Your task to perform on an android device: Show me popular games on the Play Store Image 0: 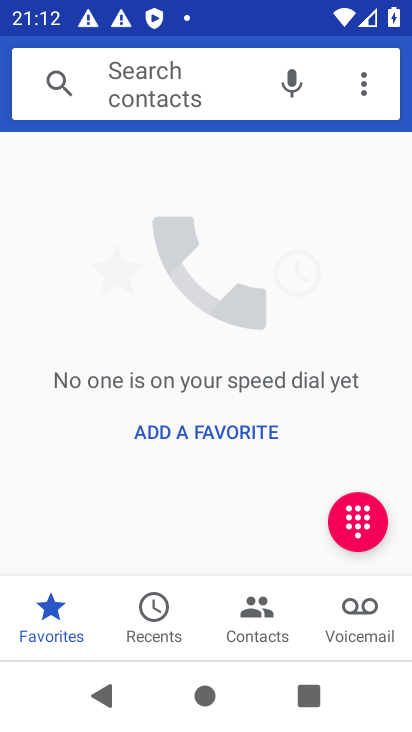
Step 0: press home button
Your task to perform on an android device: Show me popular games on the Play Store Image 1: 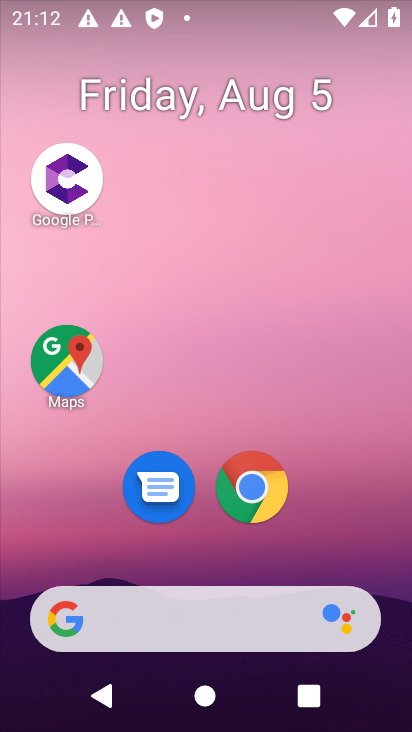
Step 1: drag from (244, 572) to (143, 33)
Your task to perform on an android device: Show me popular games on the Play Store Image 2: 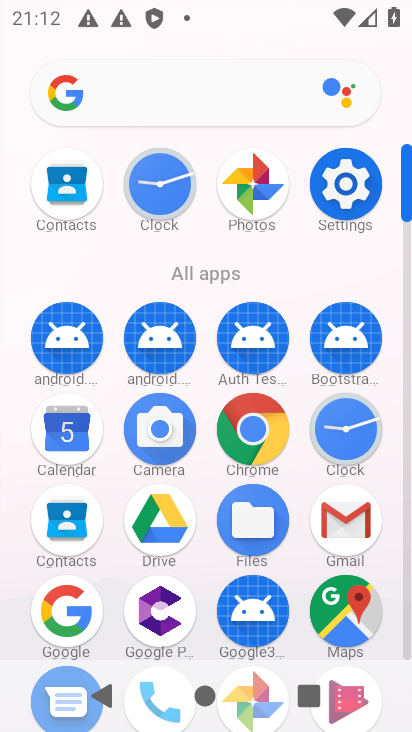
Step 2: drag from (213, 570) to (189, 59)
Your task to perform on an android device: Show me popular games on the Play Store Image 3: 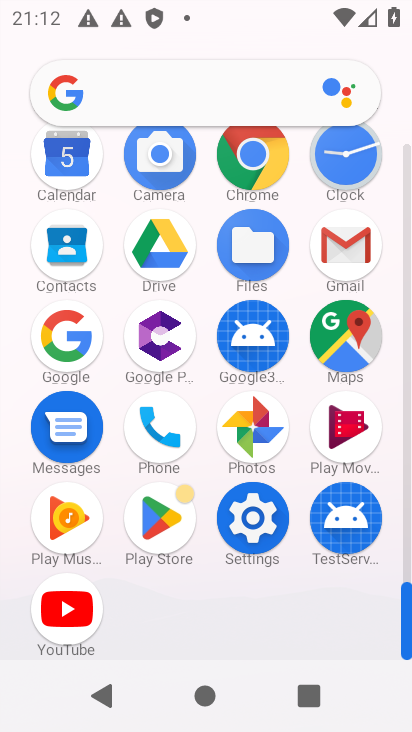
Step 3: click (151, 509)
Your task to perform on an android device: Show me popular games on the Play Store Image 4: 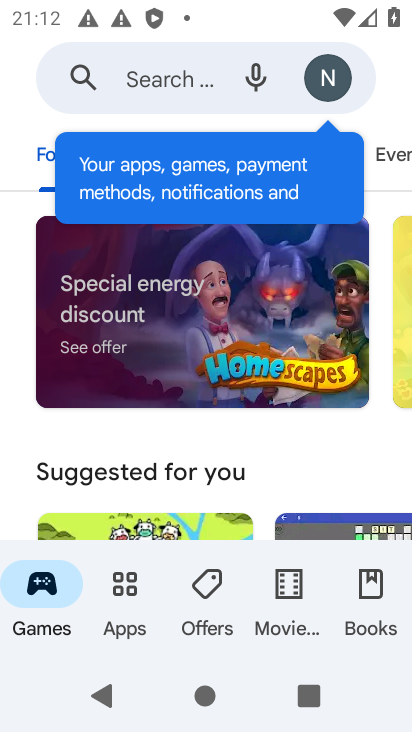
Step 4: task complete